Your task to perform on an android device: Search for Italian restaurants on Maps Image 0: 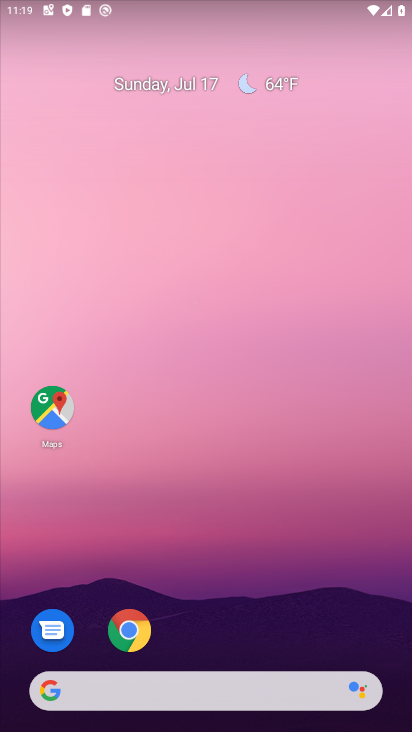
Step 0: click (48, 404)
Your task to perform on an android device: Search for Italian restaurants on Maps Image 1: 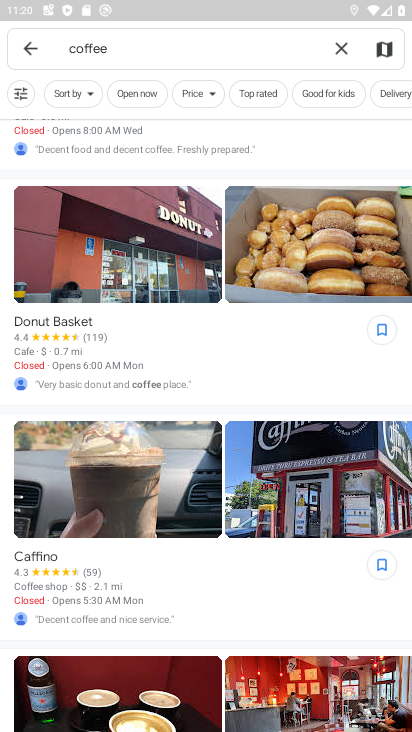
Step 1: click (337, 42)
Your task to perform on an android device: Search for Italian restaurants on Maps Image 2: 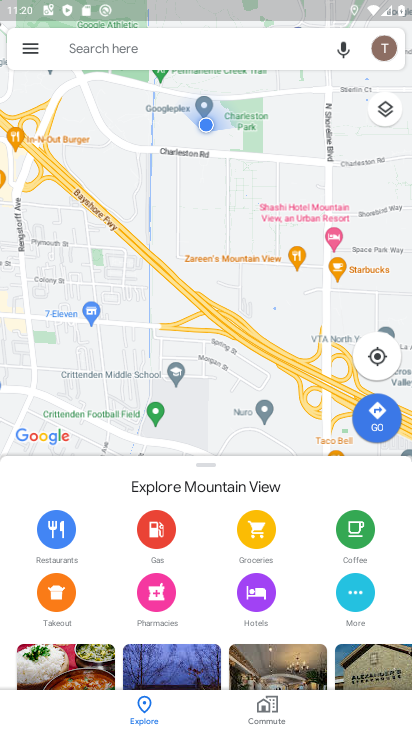
Step 2: click (155, 49)
Your task to perform on an android device: Search for Italian restaurants on Maps Image 3: 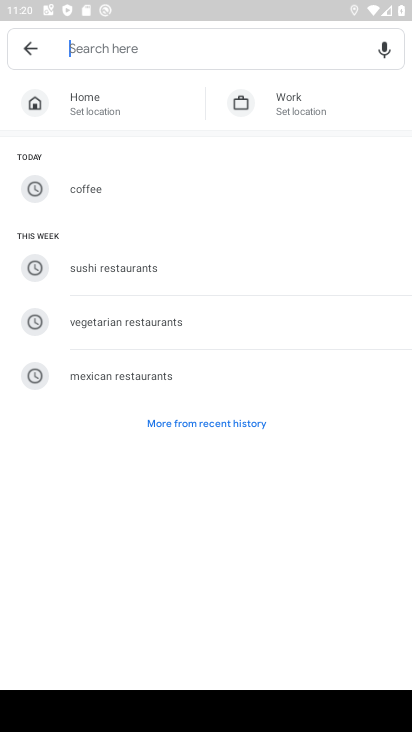
Step 3: type "italian restaurants"
Your task to perform on an android device: Search for Italian restaurants on Maps Image 4: 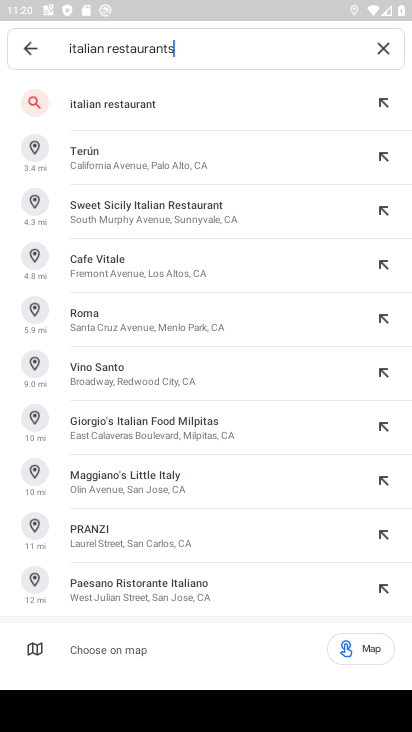
Step 4: click (142, 105)
Your task to perform on an android device: Search for Italian restaurants on Maps Image 5: 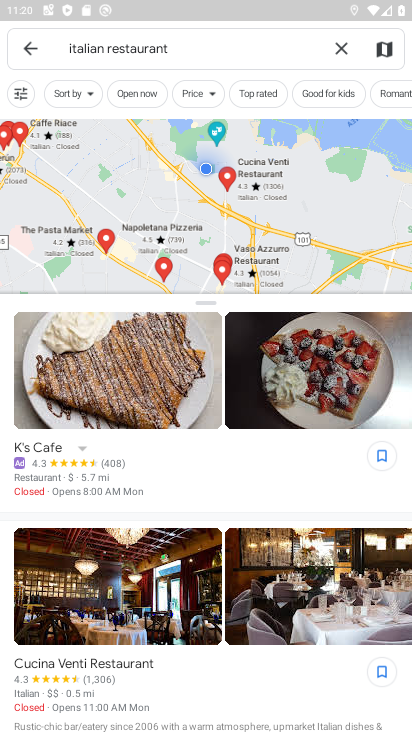
Step 5: task complete